Your task to perform on an android device: turn on data saver in the chrome app Image 0: 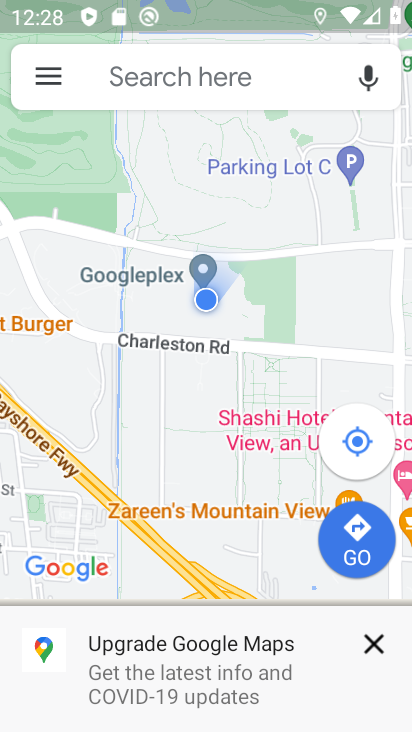
Step 0: task complete